Your task to perform on an android device: Open battery settings Image 0: 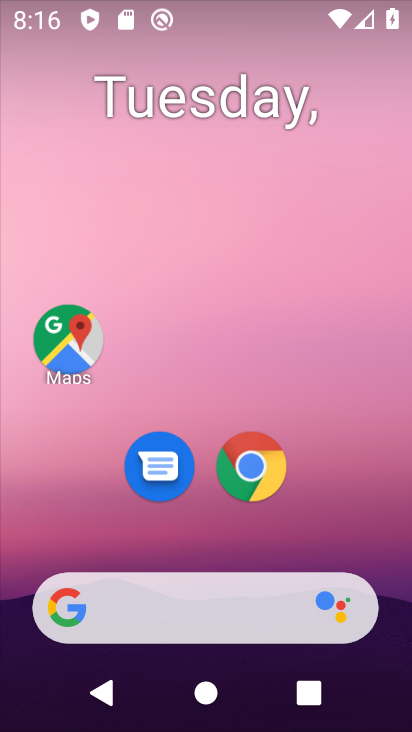
Step 0: drag from (218, 553) to (308, 18)
Your task to perform on an android device: Open battery settings Image 1: 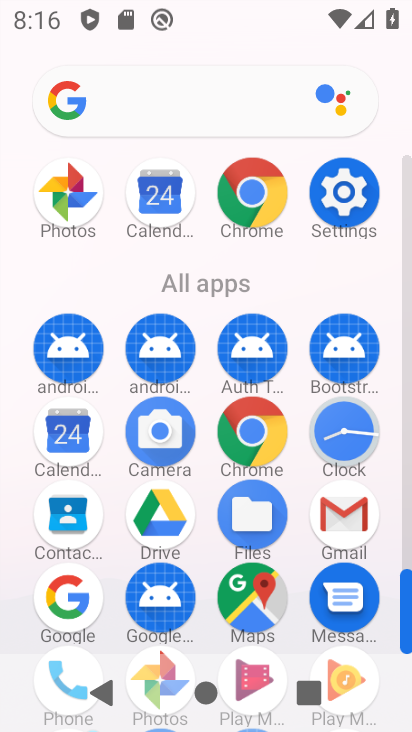
Step 1: click (359, 212)
Your task to perform on an android device: Open battery settings Image 2: 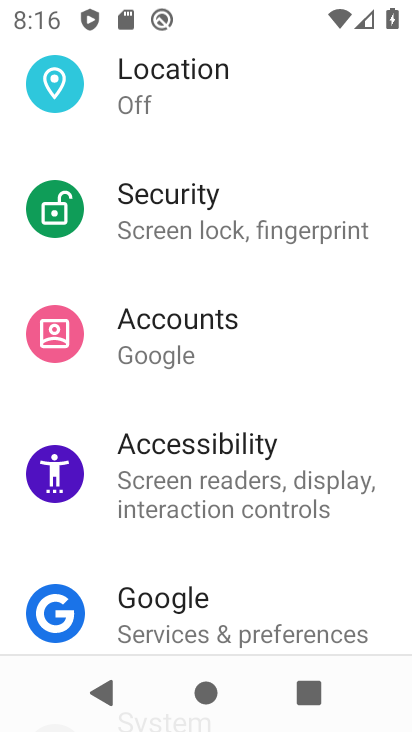
Step 2: drag from (261, 169) to (208, 600)
Your task to perform on an android device: Open battery settings Image 3: 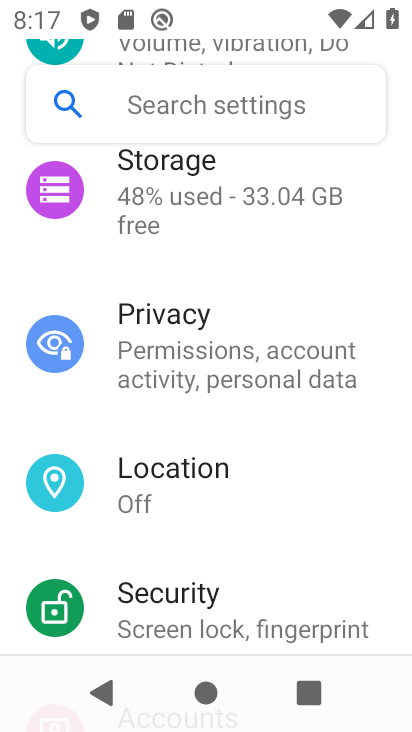
Step 3: drag from (223, 282) to (220, 501)
Your task to perform on an android device: Open battery settings Image 4: 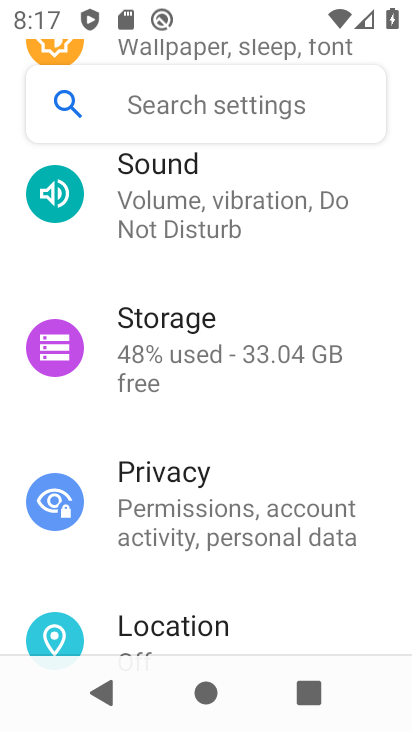
Step 4: drag from (251, 255) to (244, 722)
Your task to perform on an android device: Open battery settings Image 5: 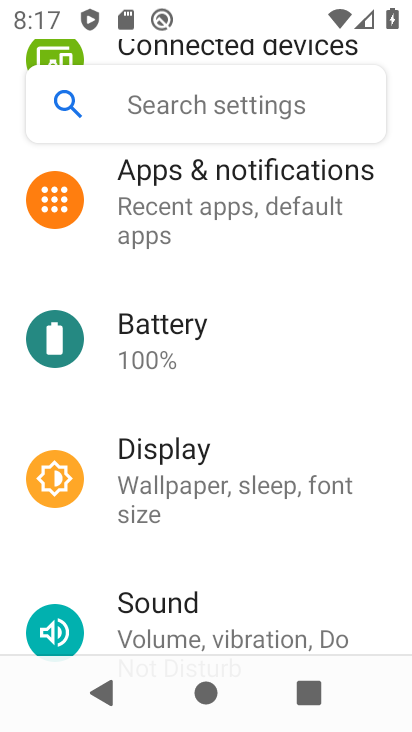
Step 5: drag from (246, 280) to (235, 554)
Your task to perform on an android device: Open battery settings Image 6: 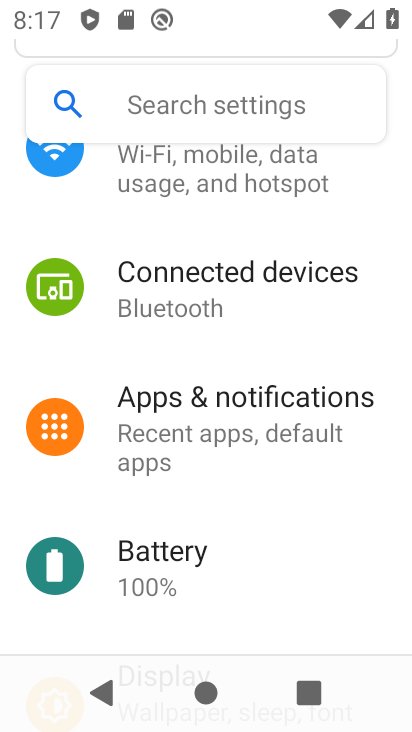
Step 6: drag from (238, 485) to (252, 377)
Your task to perform on an android device: Open battery settings Image 7: 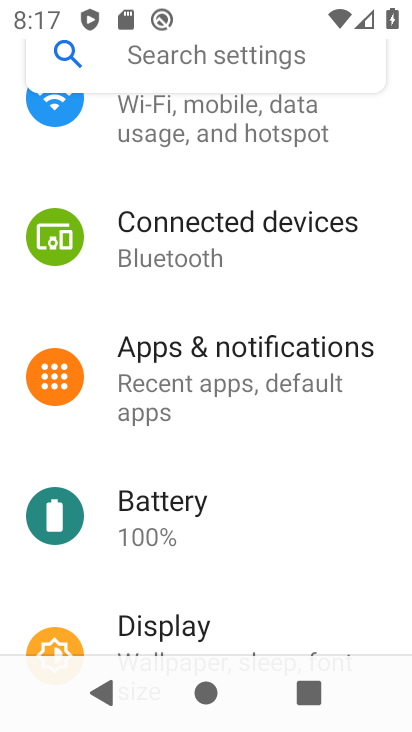
Step 7: click (195, 518)
Your task to perform on an android device: Open battery settings Image 8: 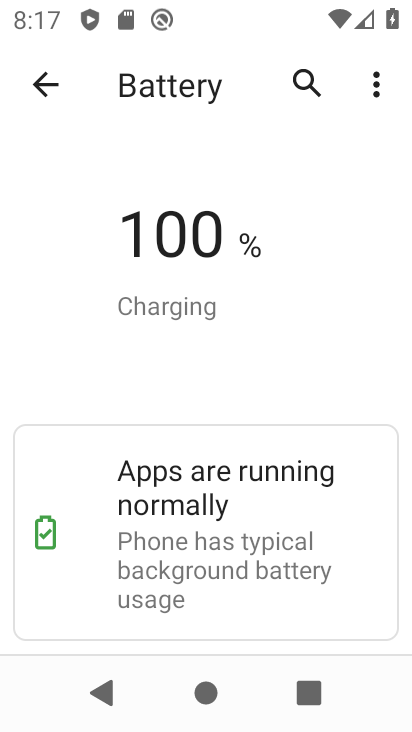
Step 8: task complete